Your task to perform on an android device: Open internet settings Image 0: 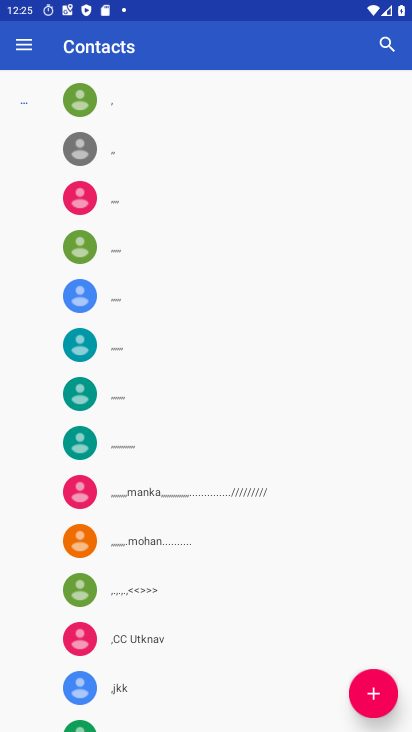
Step 0: press home button
Your task to perform on an android device: Open internet settings Image 1: 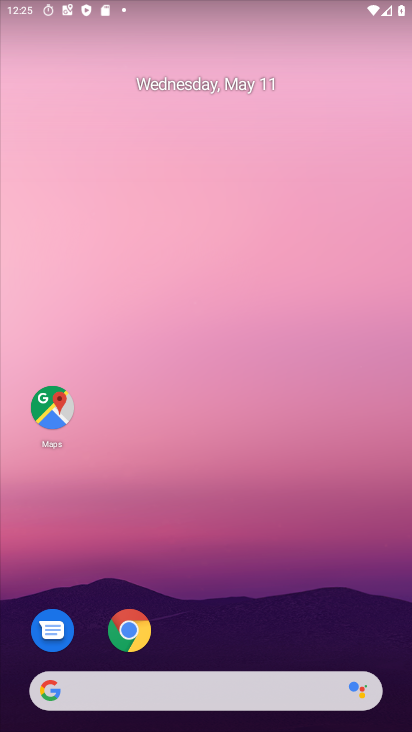
Step 1: drag from (287, 628) to (285, 87)
Your task to perform on an android device: Open internet settings Image 2: 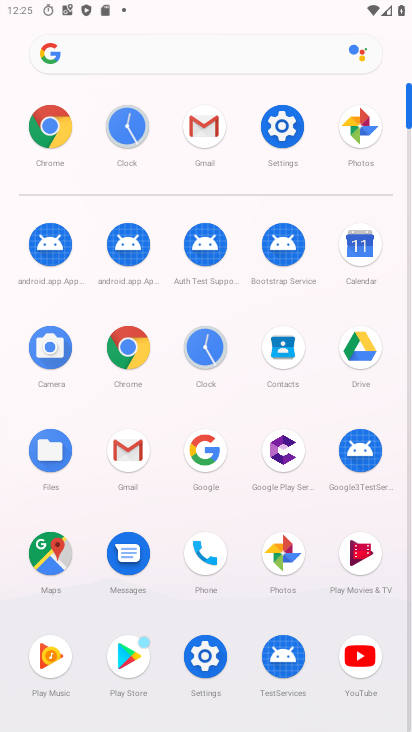
Step 2: click (285, 130)
Your task to perform on an android device: Open internet settings Image 3: 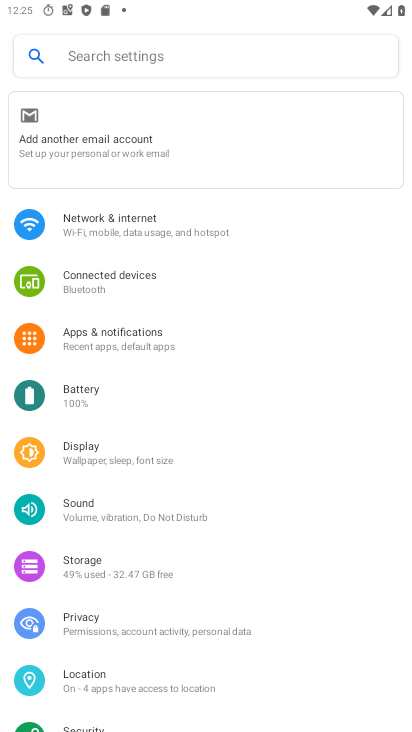
Step 3: click (144, 222)
Your task to perform on an android device: Open internet settings Image 4: 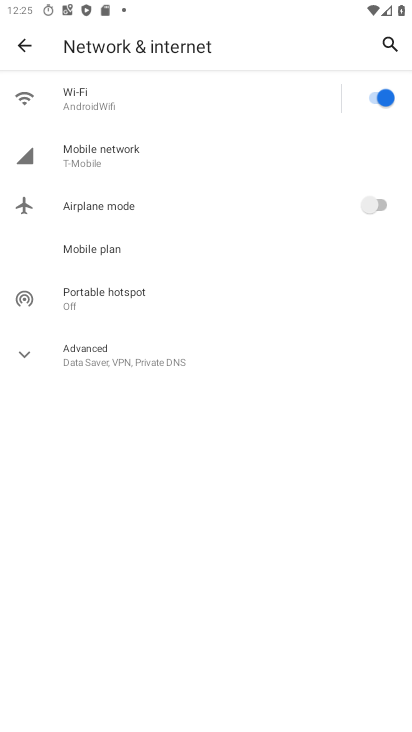
Step 4: click (126, 366)
Your task to perform on an android device: Open internet settings Image 5: 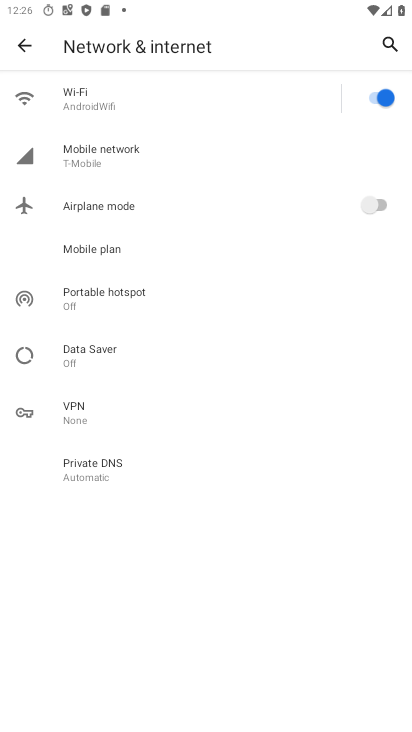
Step 5: task complete